Your task to perform on an android device: toggle translation in the chrome app Image 0: 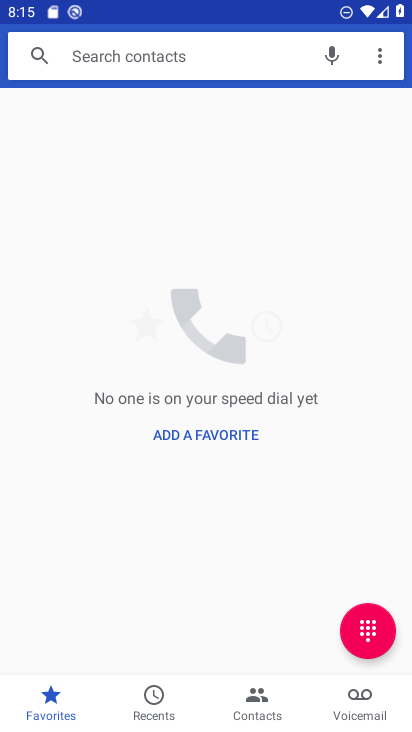
Step 0: press home button
Your task to perform on an android device: toggle translation in the chrome app Image 1: 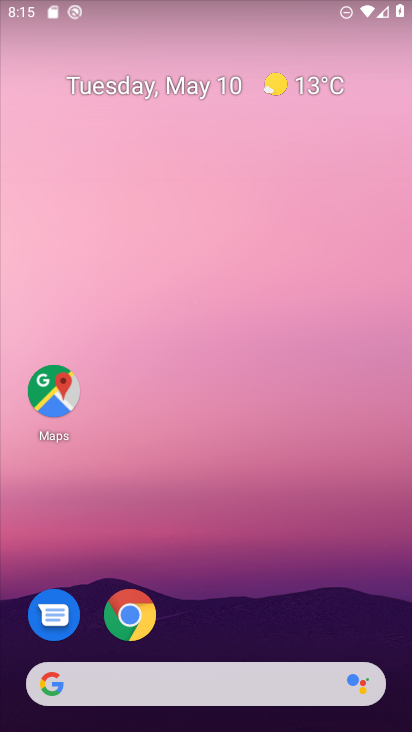
Step 1: click (132, 613)
Your task to perform on an android device: toggle translation in the chrome app Image 2: 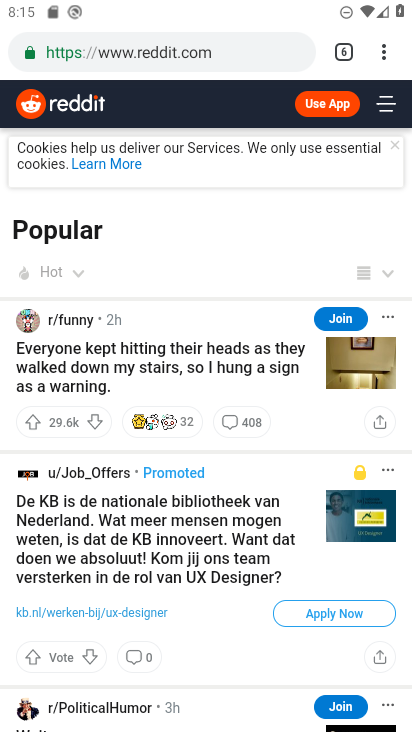
Step 2: click (385, 50)
Your task to perform on an android device: toggle translation in the chrome app Image 3: 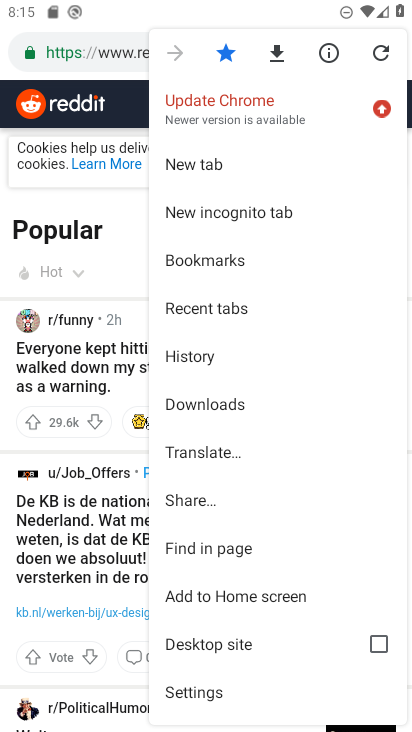
Step 3: drag from (271, 490) to (239, 206)
Your task to perform on an android device: toggle translation in the chrome app Image 4: 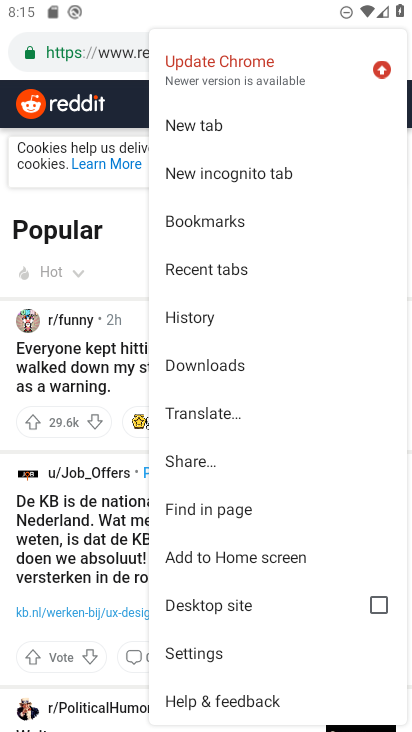
Step 4: click (189, 655)
Your task to perform on an android device: toggle translation in the chrome app Image 5: 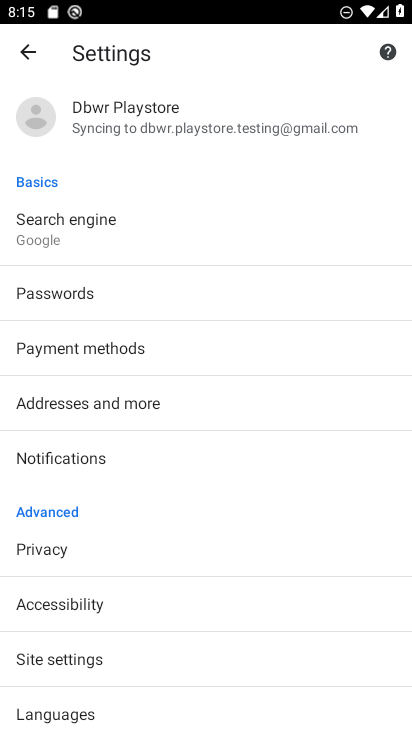
Step 5: drag from (152, 447) to (138, 397)
Your task to perform on an android device: toggle translation in the chrome app Image 6: 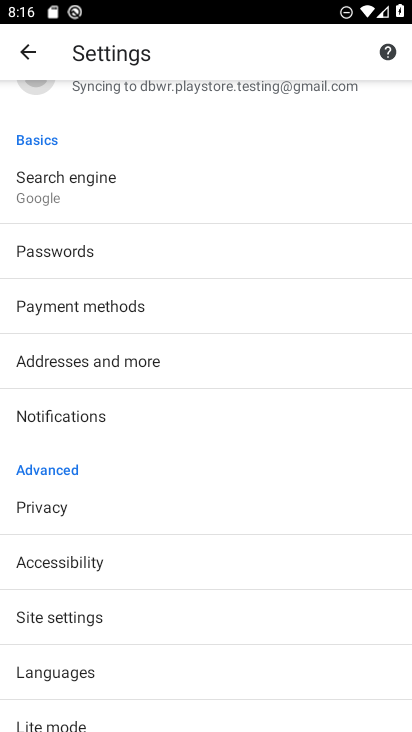
Step 6: click (77, 671)
Your task to perform on an android device: toggle translation in the chrome app Image 7: 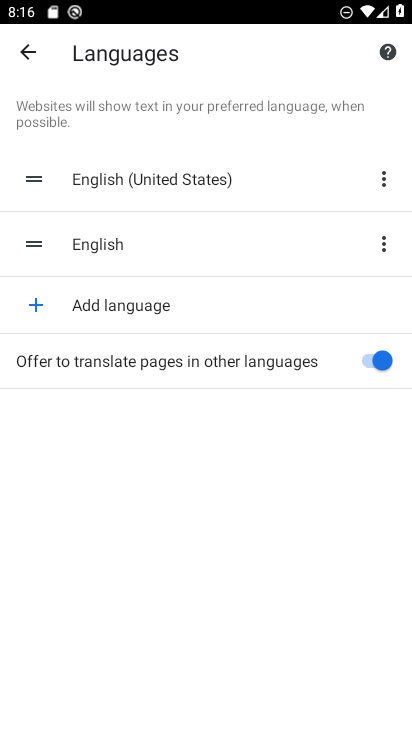
Step 7: click (379, 360)
Your task to perform on an android device: toggle translation in the chrome app Image 8: 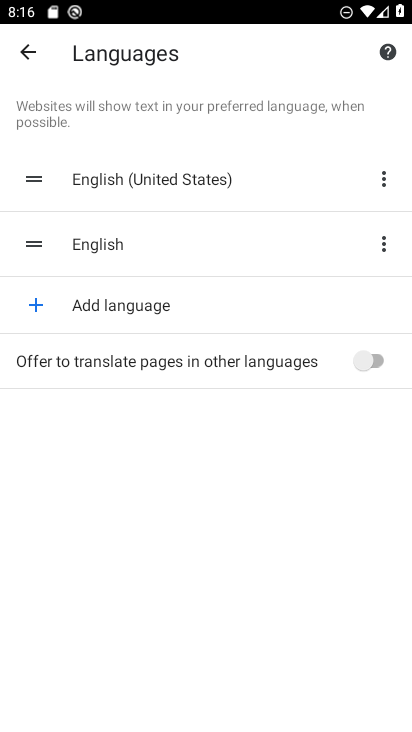
Step 8: task complete